Your task to perform on an android device: Play the last video I watched on Youtube Image 0: 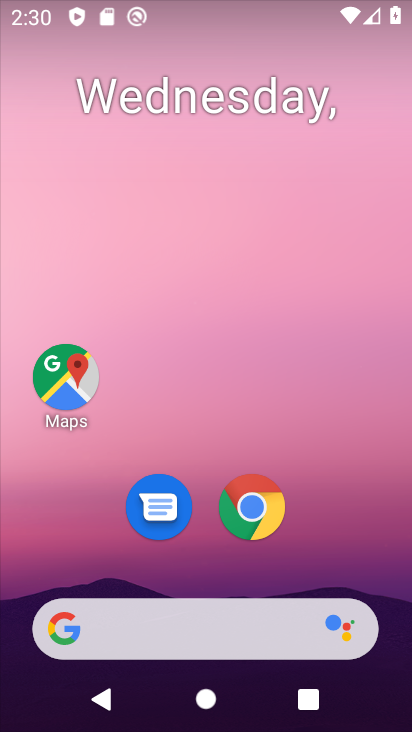
Step 0: drag from (314, 509) to (365, 7)
Your task to perform on an android device: Play the last video I watched on Youtube Image 1: 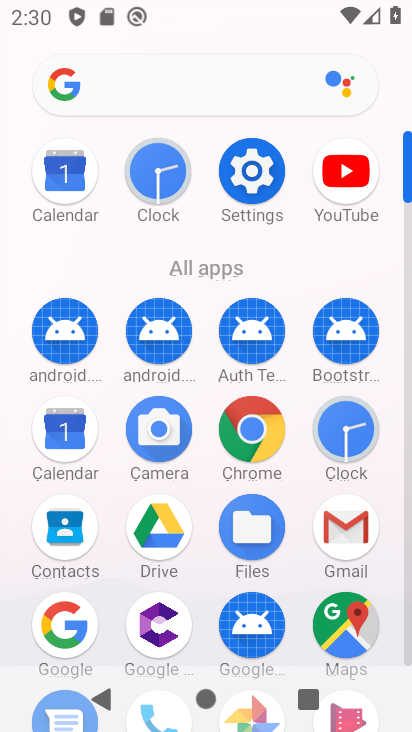
Step 1: click (346, 176)
Your task to perform on an android device: Play the last video I watched on Youtube Image 2: 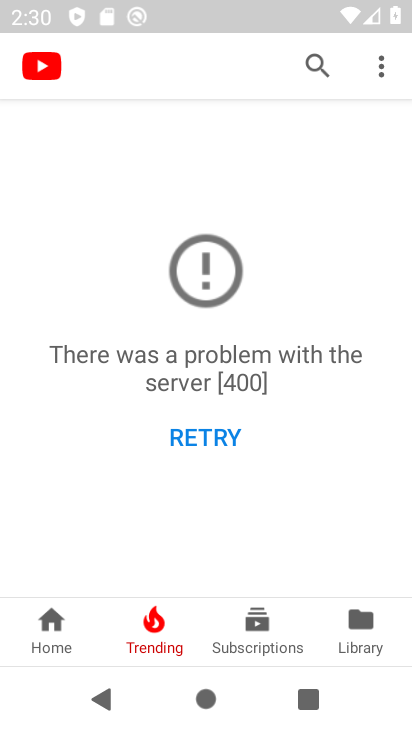
Step 2: click (358, 605)
Your task to perform on an android device: Play the last video I watched on Youtube Image 3: 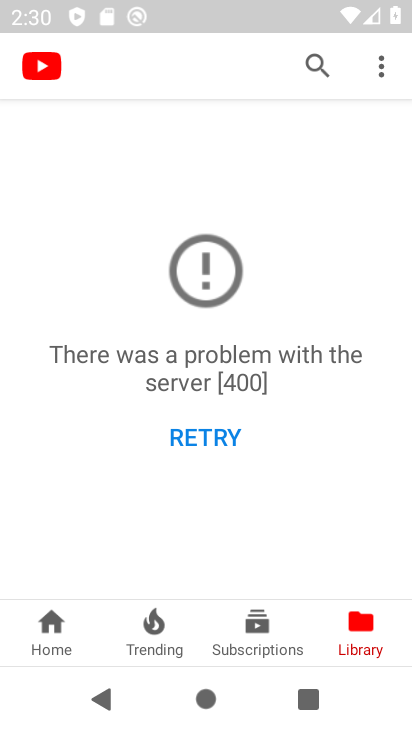
Step 3: click (233, 425)
Your task to perform on an android device: Play the last video I watched on Youtube Image 4: 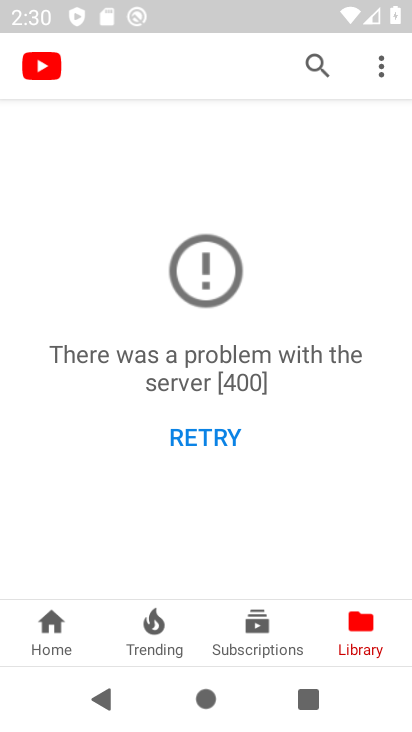
Step 4: task complete